Your task to perform on an android device: toggle priority inbox in the gmail app Image 0: 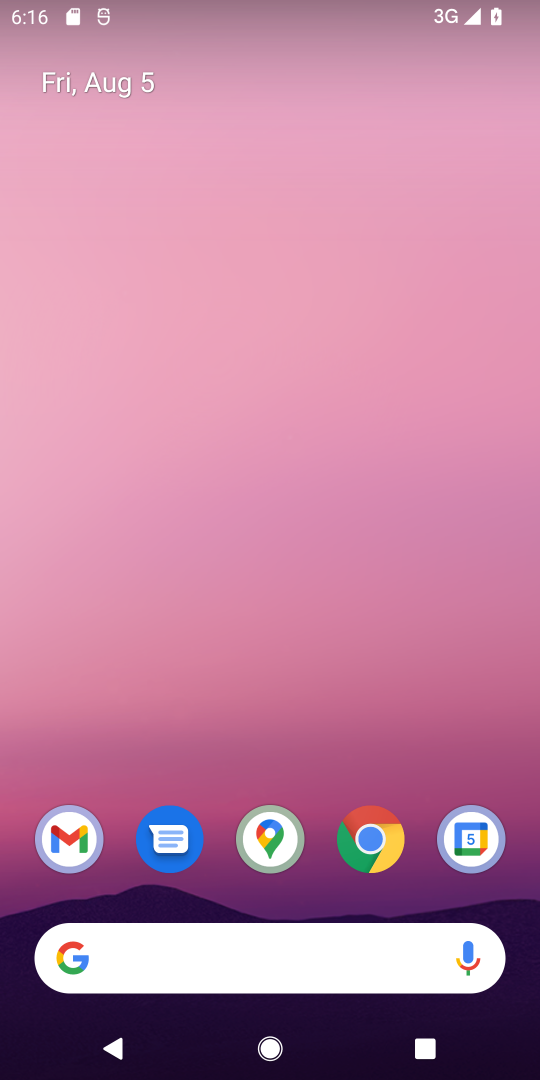
Step 0: drag from (263, 688) to (264, 190)
Your task to perform on an android device: toggle priority inbox in the gmail app Image 1: 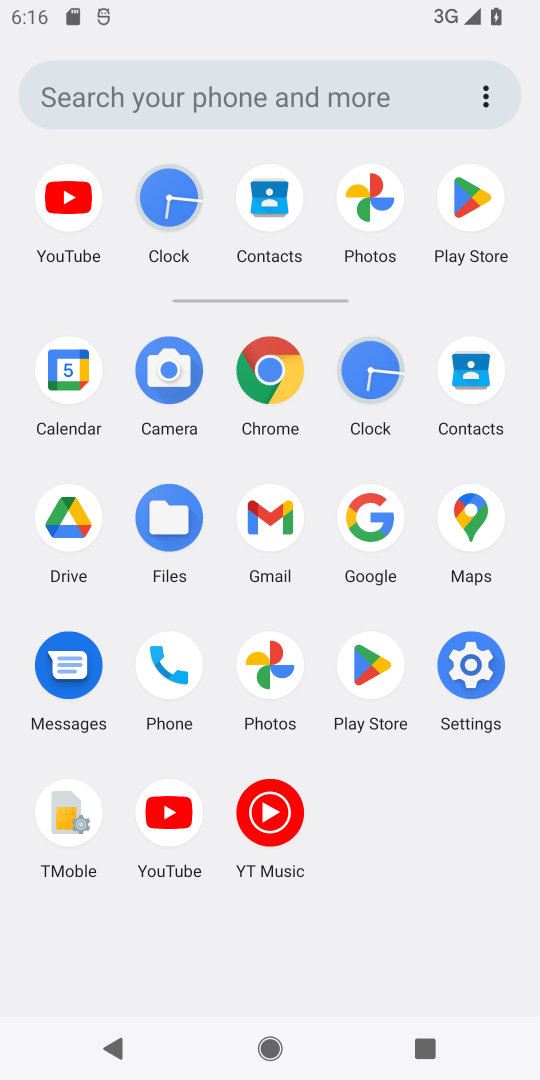
Step 1: click (272, 555)
Your task to perform on an android device: toggle priority inbox in the gmail app Image 2: 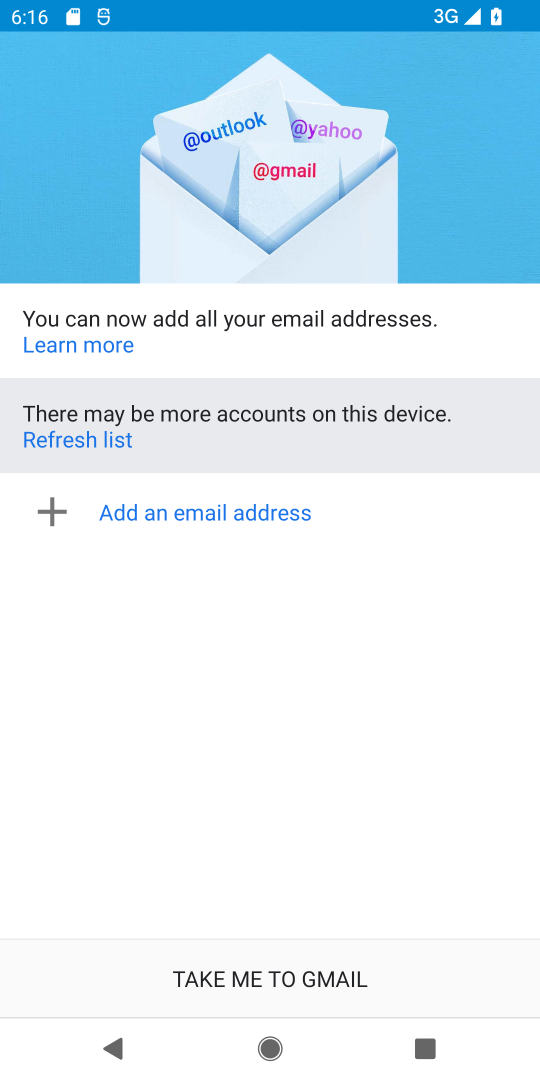
Step 2: task complete